Your task to perform on an android device: turn smart compose on in the gmail app Image 0: 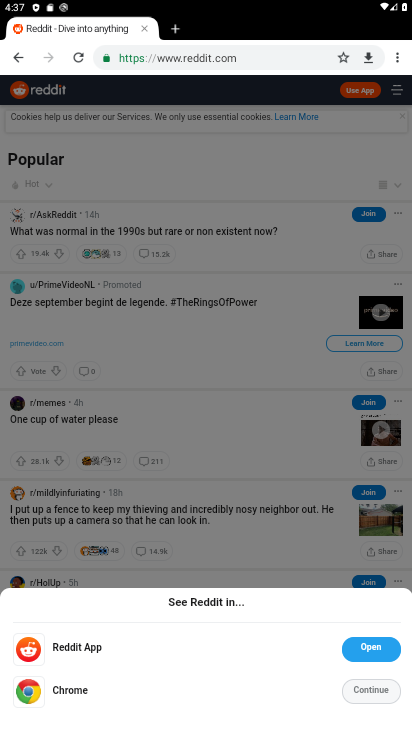
Step 0: press home button
Your task to perform on an android device: turn smart compose on in the gmail app Image 1: 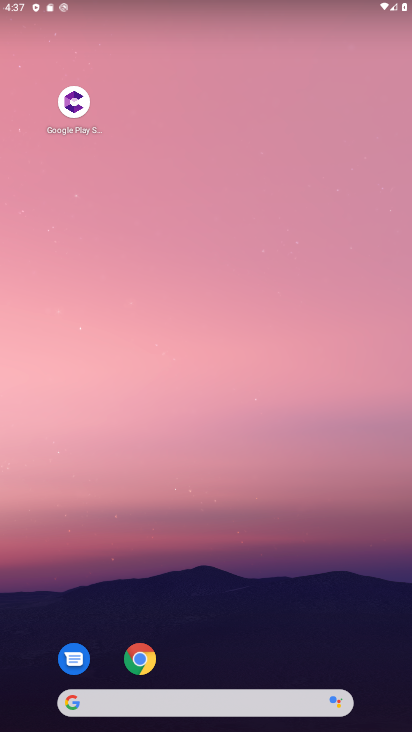
Step 1: drag from (224, 620) to (167, 211)
Your task to perform on an android device: turn smart compose on in the gmail app Image 2: 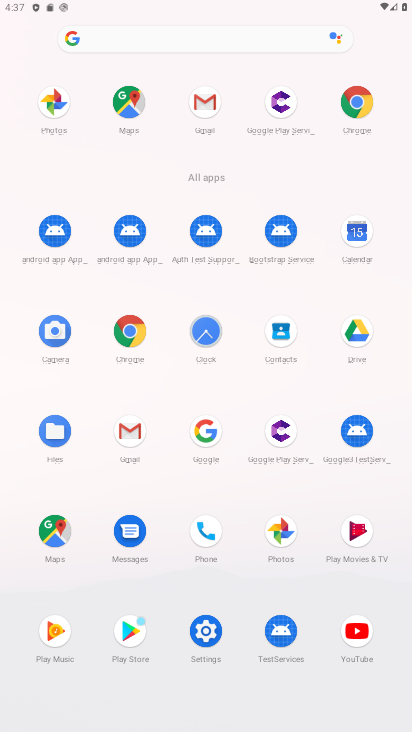
Step 2: click (206, 101)
Your task to perform on an android device: turn smart compose on in the gmail app Image 3: 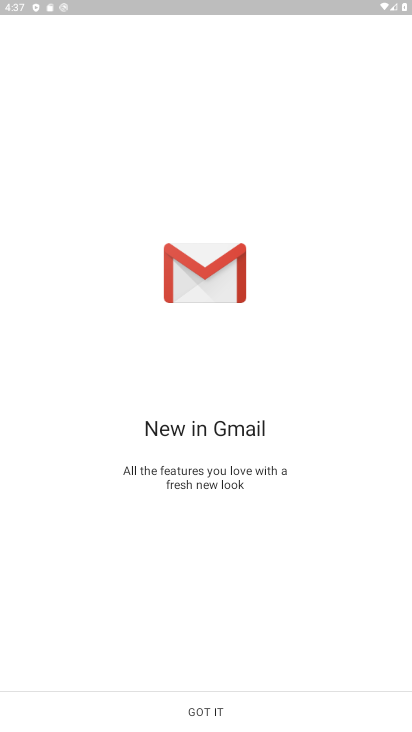
Step 3: click (207, 708)
Your task to perform on an android device: turn smart compose on in the gmail app Image 4: 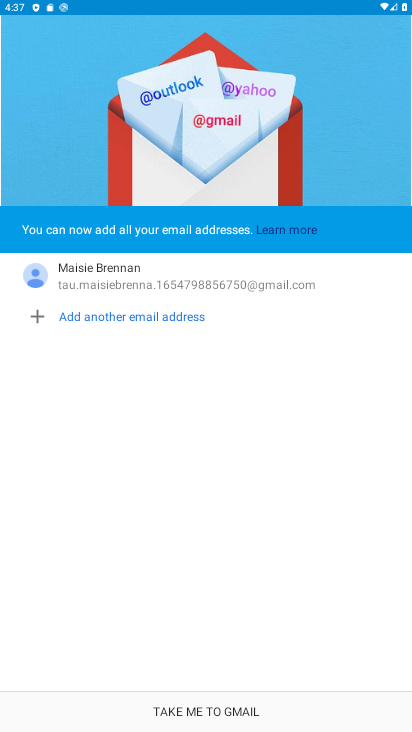
Step 4: click (207, 708)
Your task to perform on an android device: turn smart compose on in the gmail app Image 5: 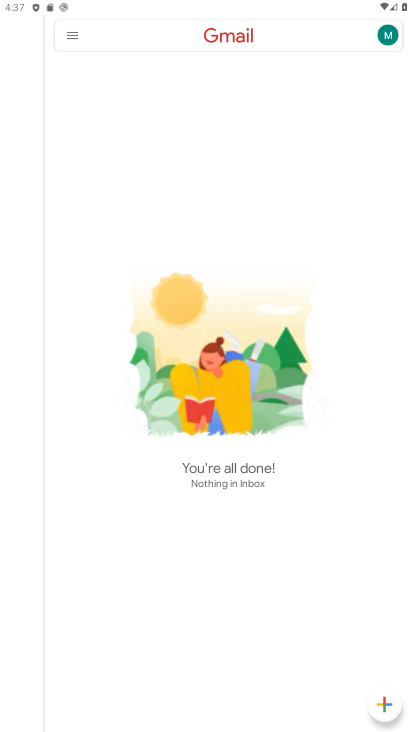
Step 5: click (27, 46)
Your task to perform on an android device: turn smart compose on in the gmail app Image 6: 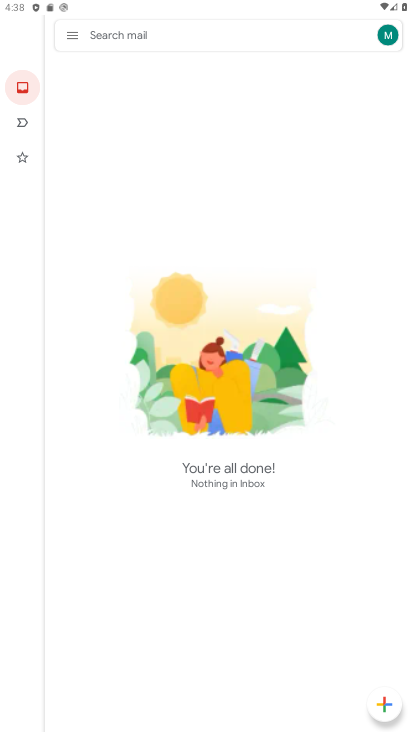
Step 6: click (64, 44)
Your task to perform on an android device: turn smart compose on in the gmail app Image 7: 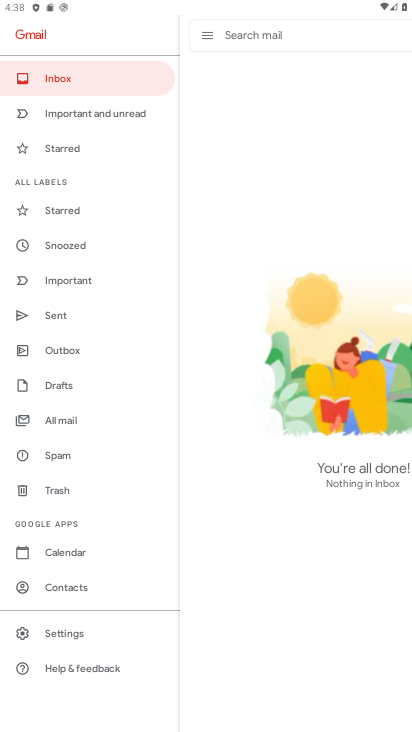
Step 7: click (79, 626)
Your task to perform on an android device: turn smart compose on in the gmail app Image 8: 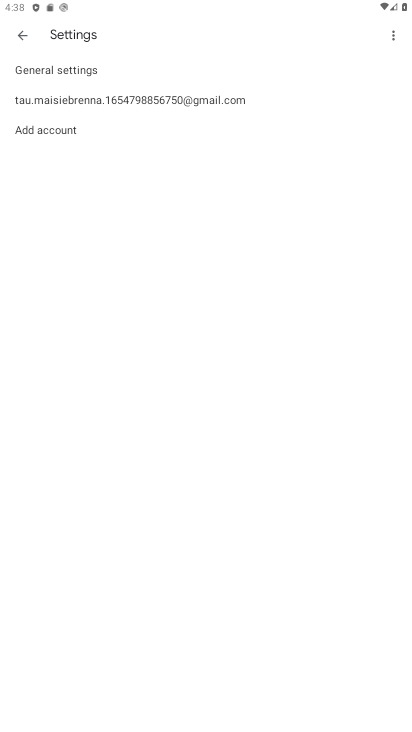
Step 8: click (156, 100)
Your task to perform on an android device: turn smart compose on in the gmail app Image 9: 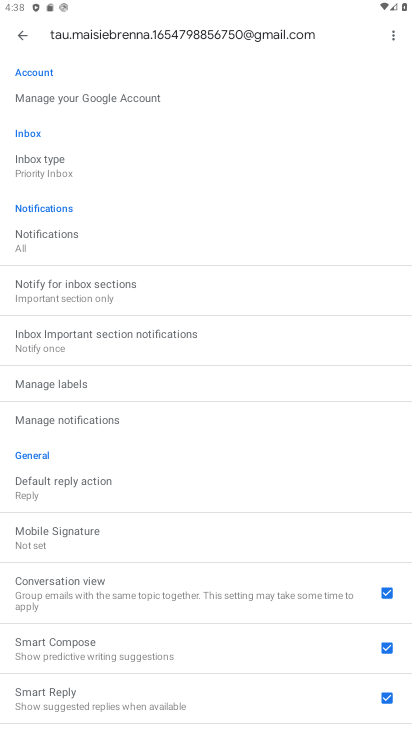
Step 9: task complete